Your task to perform on an android device: Open Wikipedia Image 0: 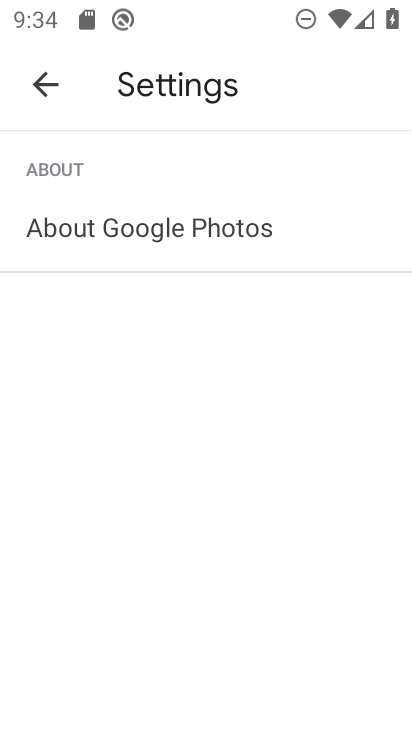
Step 0: press home button
Your task to perform on an android device: Open Wikipedia Image 1: 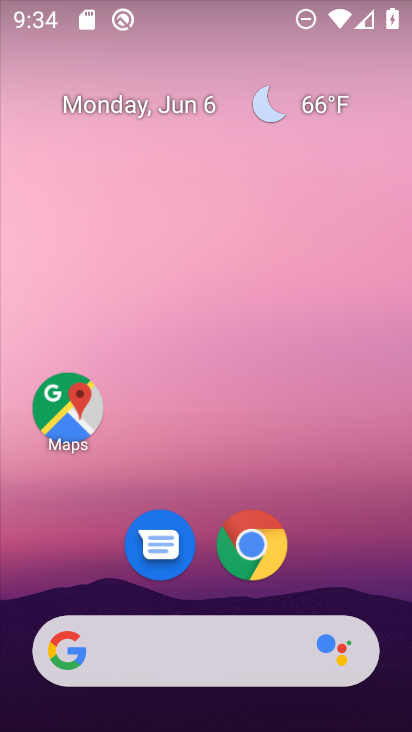
Step 1: drag from (183, 589) to (223, 195)
Your task to perform on an android device: Open Wikipedia Image 2: 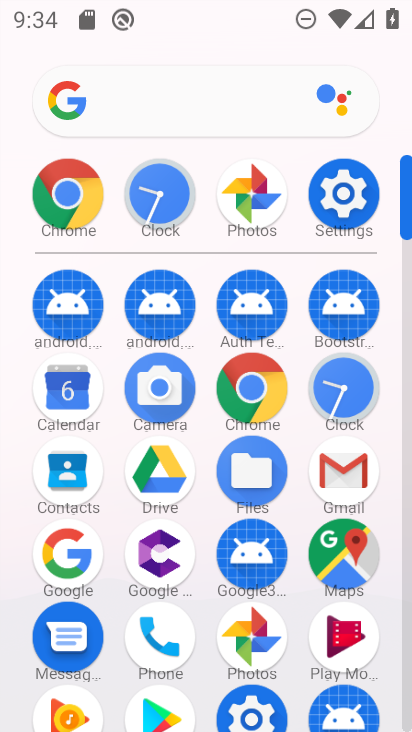
Step 2: click (72, 197)
Your task to perform on an android device: Open Wikipedia Image 3: 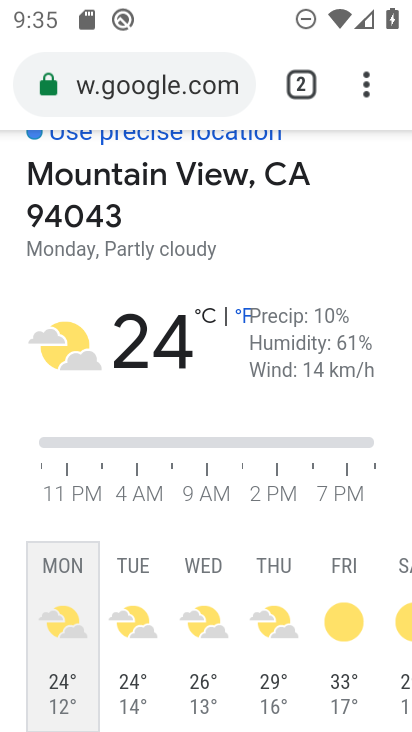
Step 3: click (95, 68)
Your task to perform on an android device: Open Wikipedia Image 4: 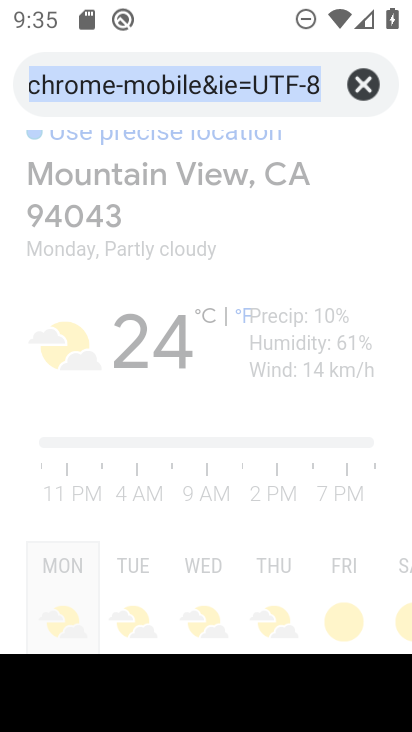
Step 4: type "wikipedia"
Your task to perform on an android device: Open Wikipedia Image 5: 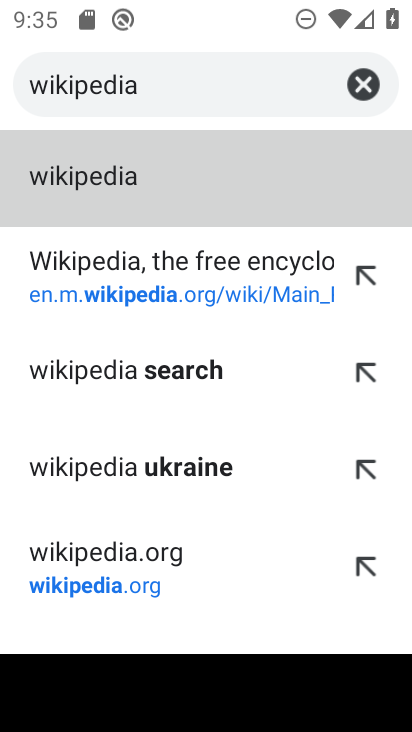
Step 5: click (155, 181)
Your task to perform on an android device: Open Wikipedia Image 6: 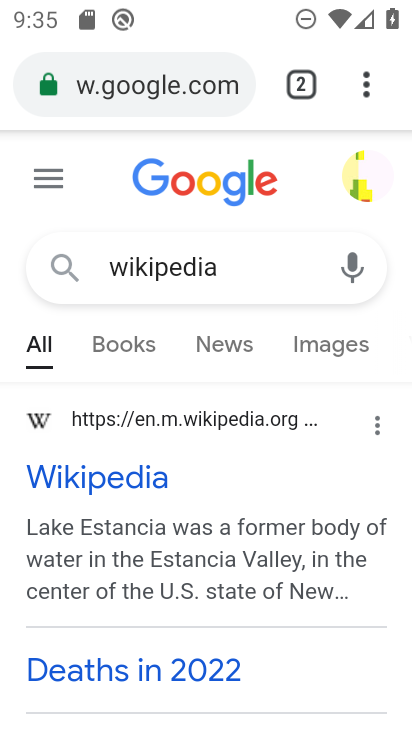
Step 6: task complete